Your task to perform on an android device: turn off priority inbox in the gmail app Image 0: 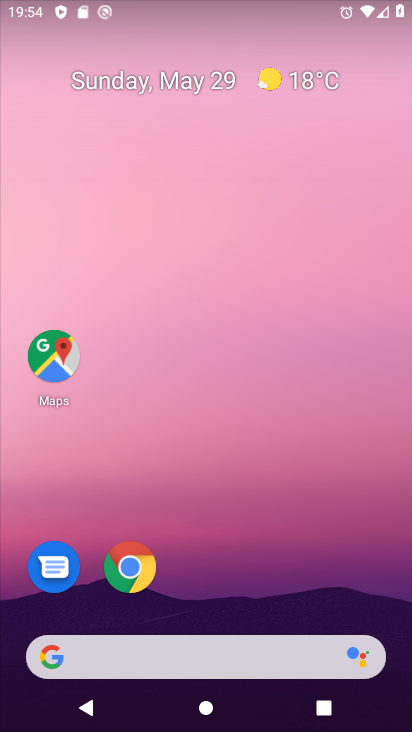
Step 0: drag from (397, 708) to (372, 96)
Your task to perform on an android device: turn off priority inbox in the gmail app Image 1: 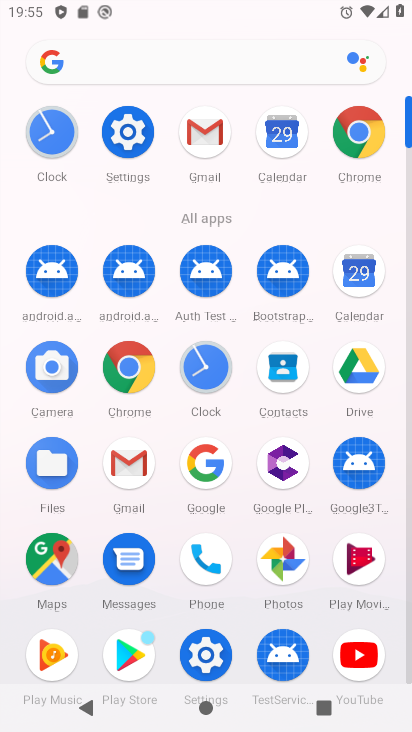
Step 1: click (134, 456)
Your task to perform on an android device: turn off priority inbox in the gmail app Image 2: 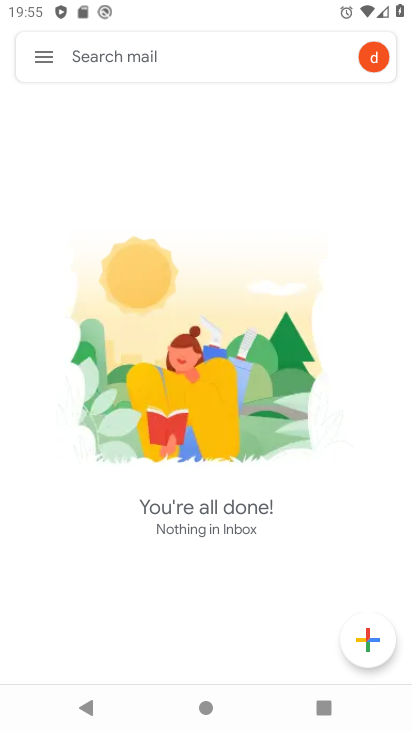
Step 2: click (45, 56)
Your task to perform on an android device: turn off priority inbox in the gmail app Image 3: 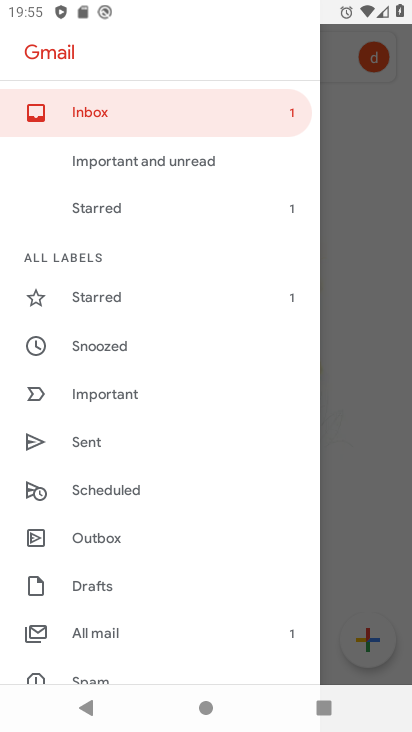
Step 3: drag from (190, 634) to (202, 296)
Your task to perform on an android device: turn off priority inbox in the gmail app Image 4: 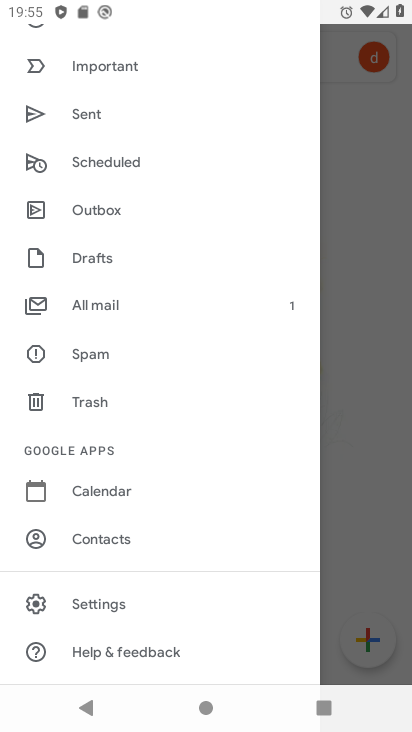
Step 4: click (81, 604)
Your task to perform on an android device: turn off priority inbox in the gmail app Image 5: 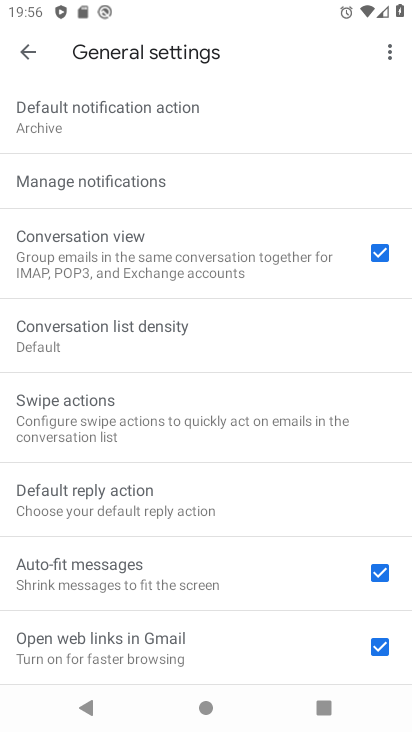
Step 5: drag from (210, 621) to (238, 305)
Your task to perform on an android device: turn off priority inbox in the gmail app Image 6: 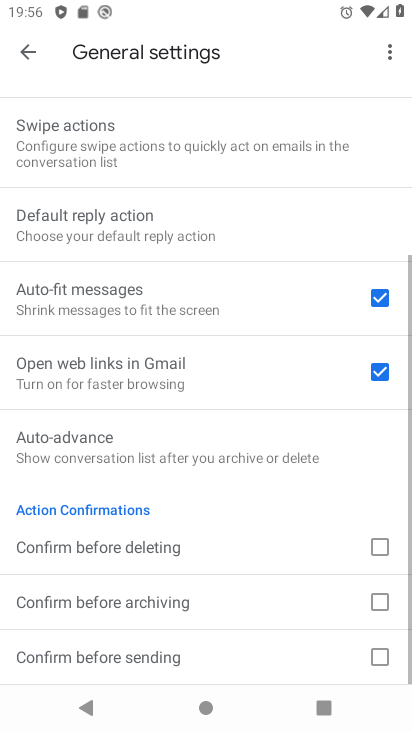
Step 6: drag from (232, 161) to (210, 636)
Your task to perform on an android device: turn off priority inbox in the gmail app Image 7: 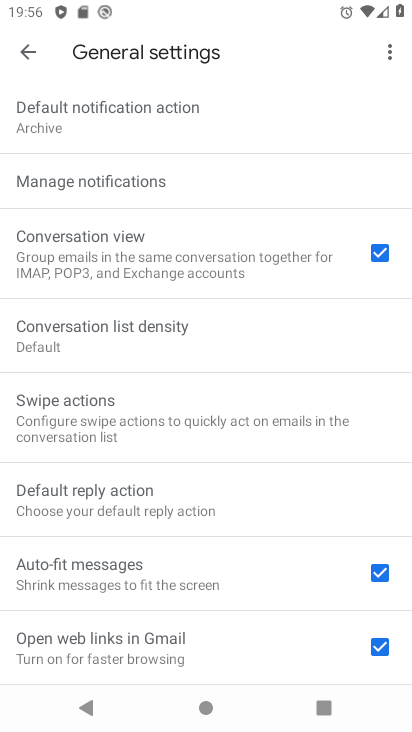
Step 7: click (27, 46)
Your task to perform on an android device: turn off priority inbox in the gmail app Image 8: 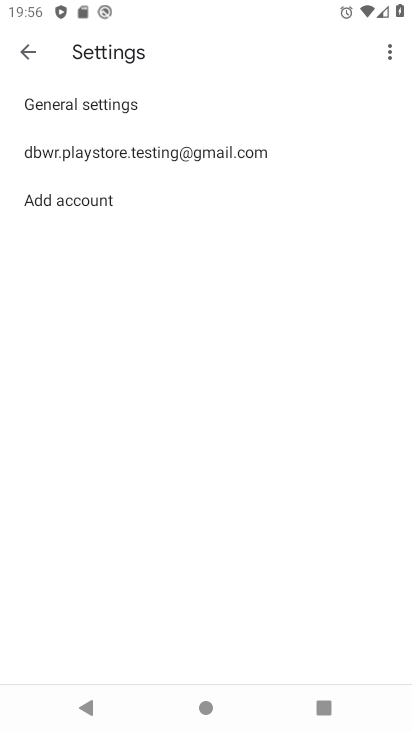
Step 8: click (88, 144)
Your task to perform on an android device: turn off priority inbox in the gmail app Image 9: 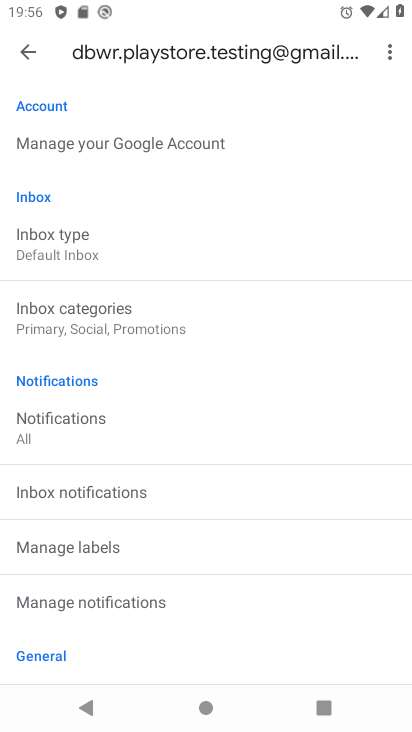
Step 9: click (57, 251)
Your task to perform on an android device: turn off priority inbox in the gmail app Image 10: 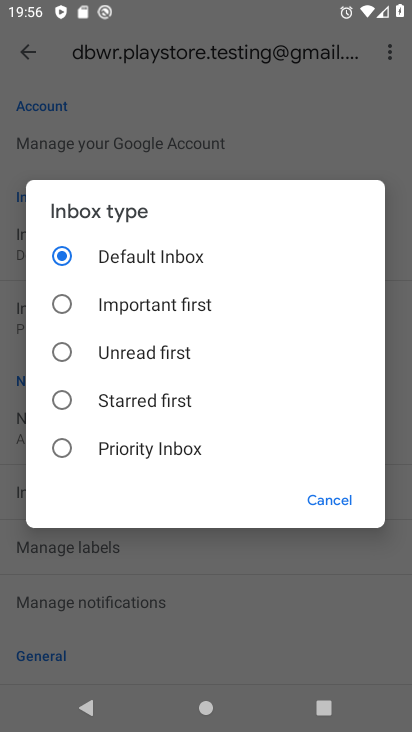
Step 10: task complete